Your task to perform on an android device: turn off notifications in google photos Image 0: 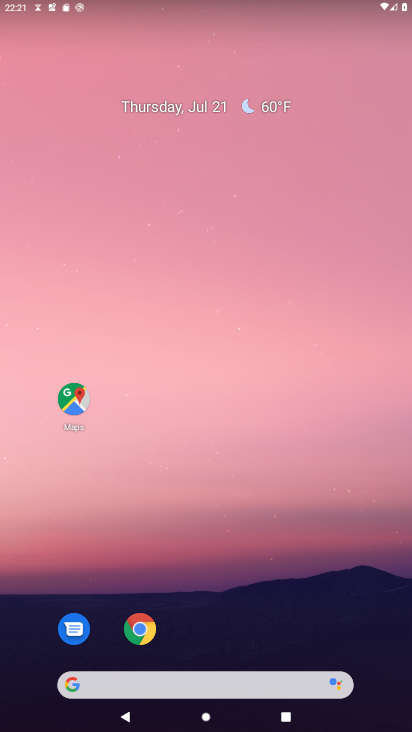
Step 0: drag from (241, 602) to (143, 110)
Your task to perform on an android device: turn off notifications in google photos Image 1: 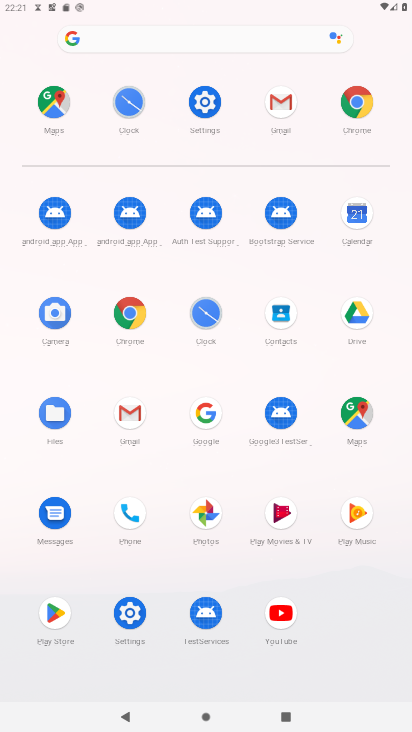
Step 1: click (211, 523)
Your task to perform on an android device: turn off notifications in google photos Image 2: 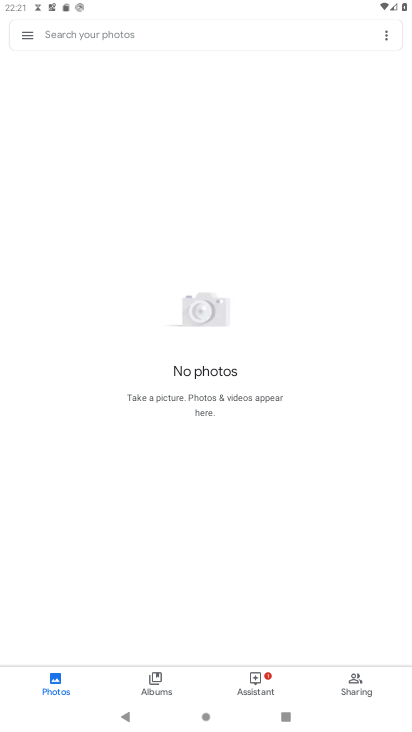
Step 2: click (25, 22)
Your task to perform on an android device: turn off notifications in google photos Image 3: 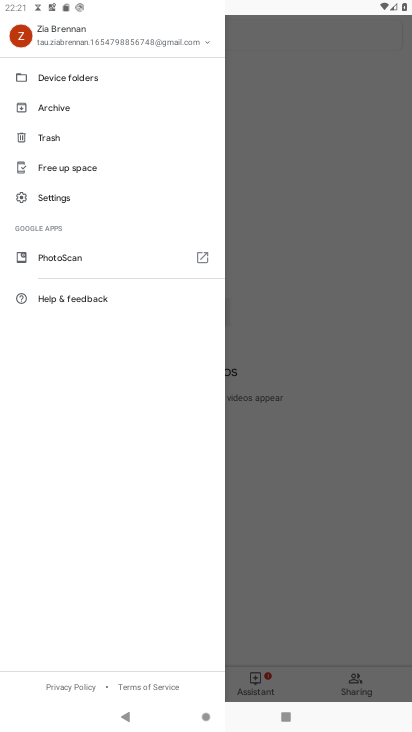
Step 3: click (58, 197)
Your task to perform on an android device: turn off notifications in google photos Image 4: 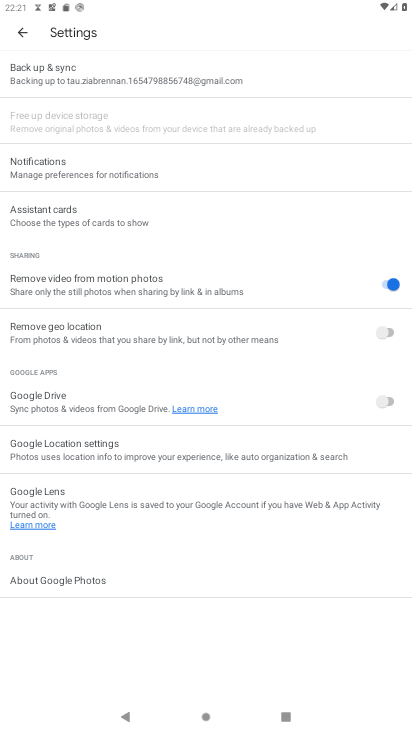
Step 4: click (83, 165)
Your task to perform on an android device: turn off notifications in google photos Image 5: 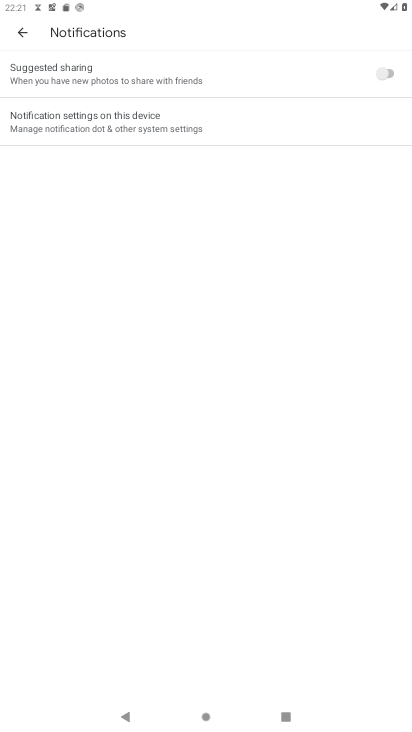
Step 5: click (141, 129)
Your task to perform on an android device: turn off notifications in google photos Image 6: 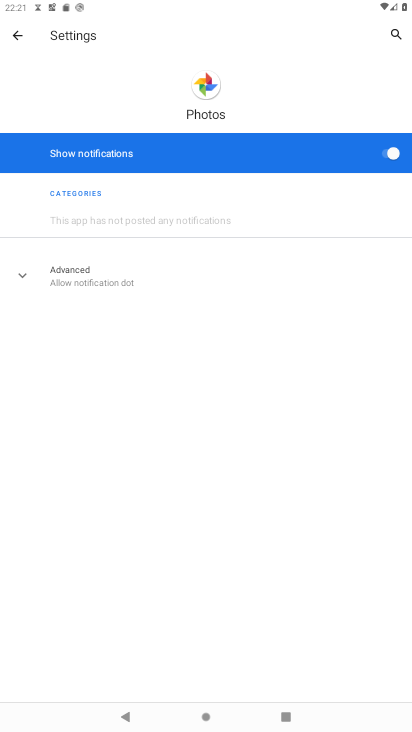
Step 6: click (396, 153)
Your task to perform on an android device: turn off notifications in google photos Image 7: 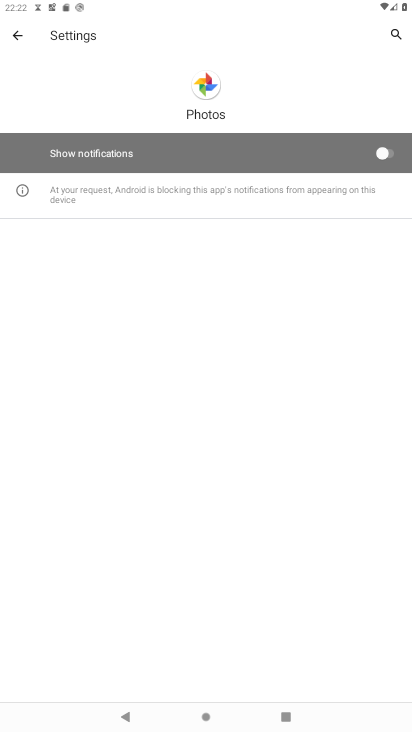
Step 7: task complete